Your task to perform on an android device: turn pop-ups on in chrome Image 0: 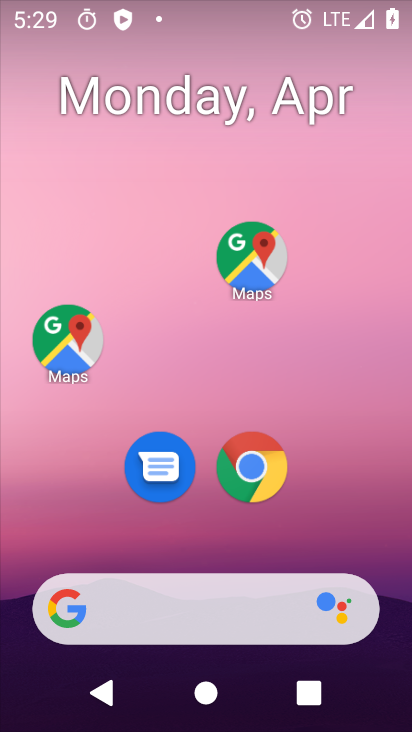
Step 0: drag from (347, 599) to (367, 2)
Your task to perform on an android device: turn pop-ups on in chrome Image 1: 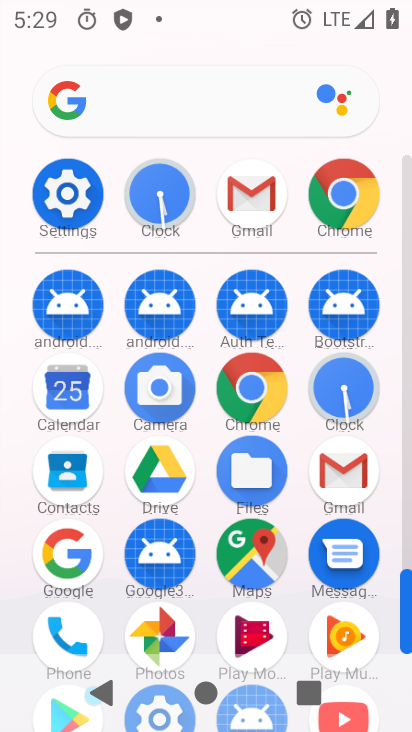
Step 1: click (252, 402)
Your task to perform on an android device: turn pop-ups on in chrome Image 2: 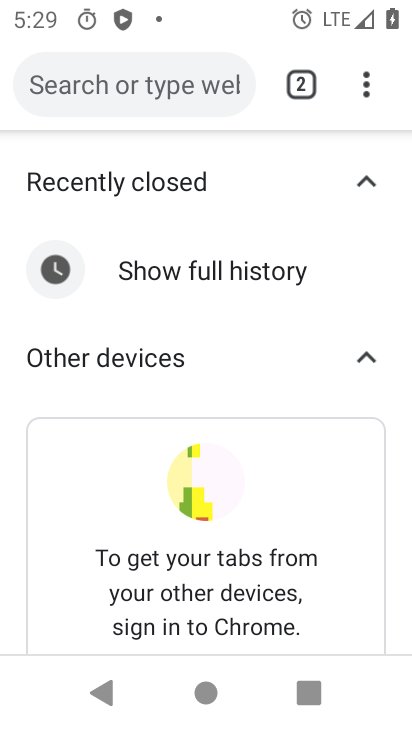
Step 2: drag from (373, 75) to (208, 523)
Your task to perform on an android device: turn pop-ups on in chrome Image 3: 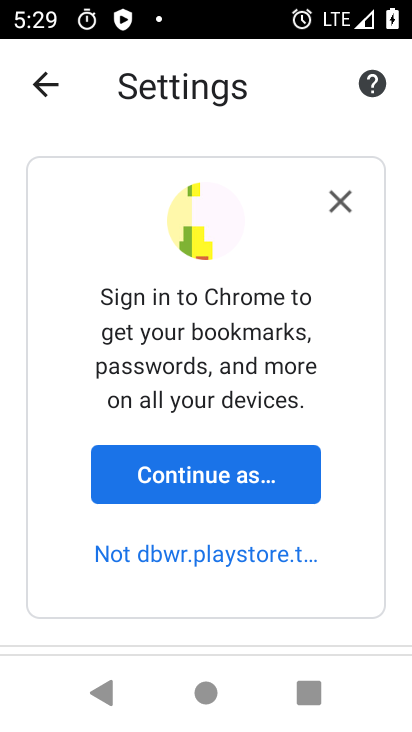
Step 3: drag from (190, 636) to (219, 75)
Your task to perform on an android device: turn pop-ups on in chrome Image 4: 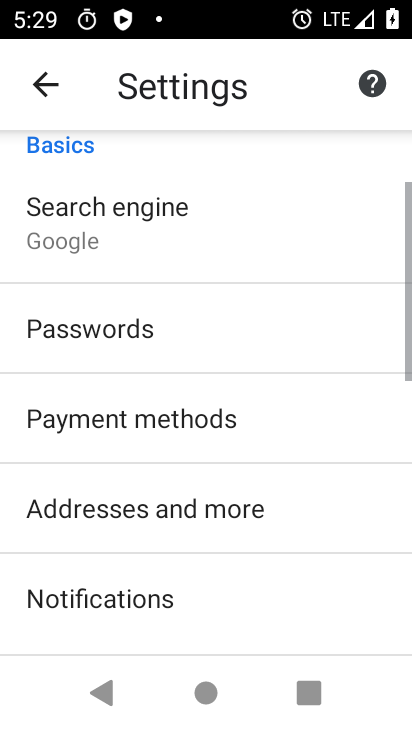
Step 4: drag from (284, 566) to (303, 67)
Your task to perform on an android device: turn pop-ups on in chrome Image 5: 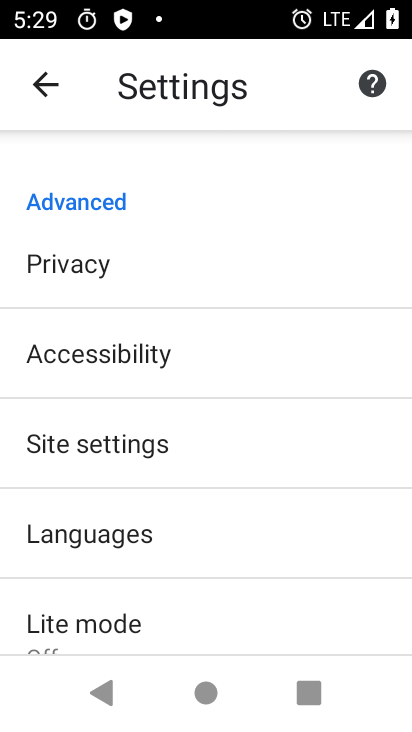
Step 5: drag from (136, 653) to (174, 300)
Your task to perform on an android device: turn pop-ups on in chrome Image 6: 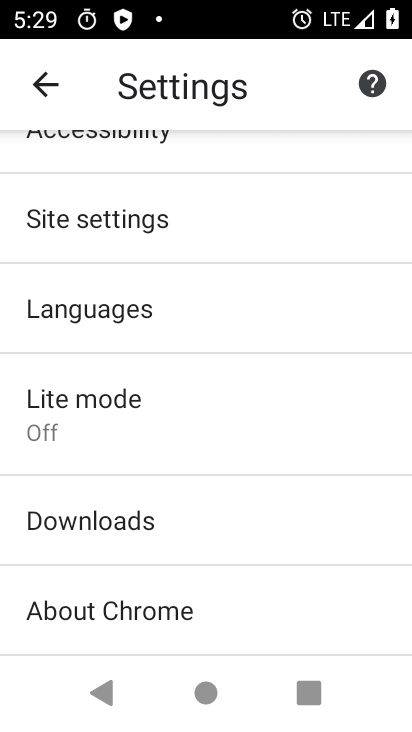
Step 6: click (190, 226)
Your task to perform on an android device: turn pop-ups on in chrome Image 7: 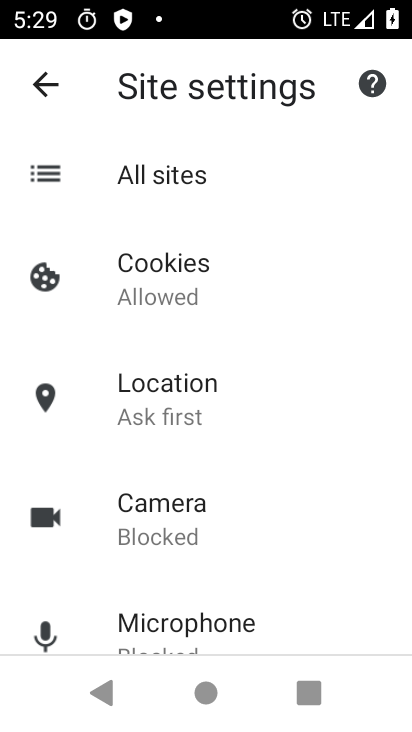
Step 7: drag from (310, 641) to (358, 166)
Your task to perform on an android device: turn pop-ups on in chrome Image 8: 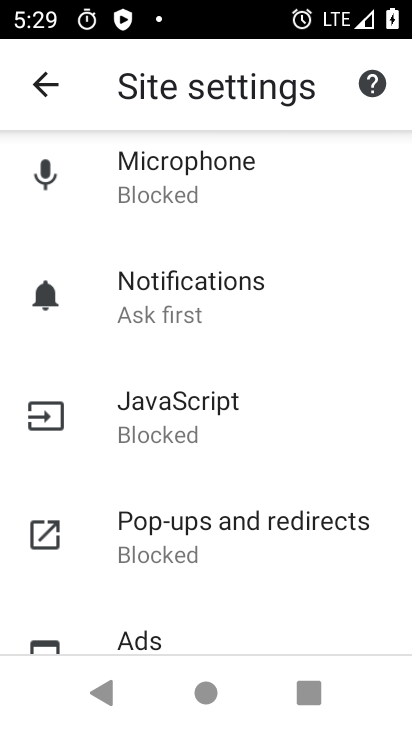
Step 8: click (311, 543)
Your task to perform on an android device: turn pop-ups on in chrome Image 9: 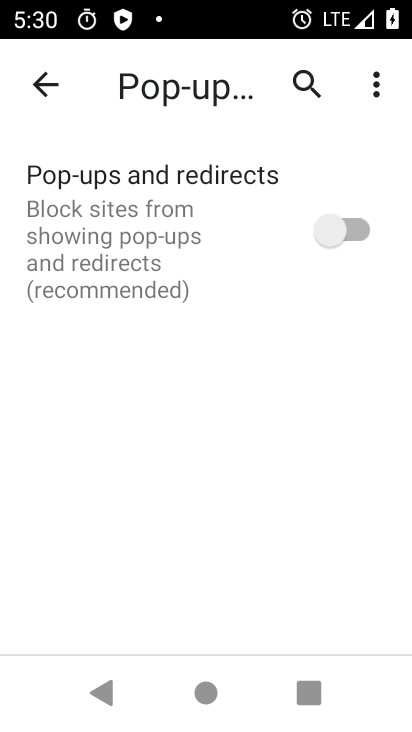
Step 9: click (361, 228)
Your task to perform on an android device: turn pop-ups on in chrome Image 10: 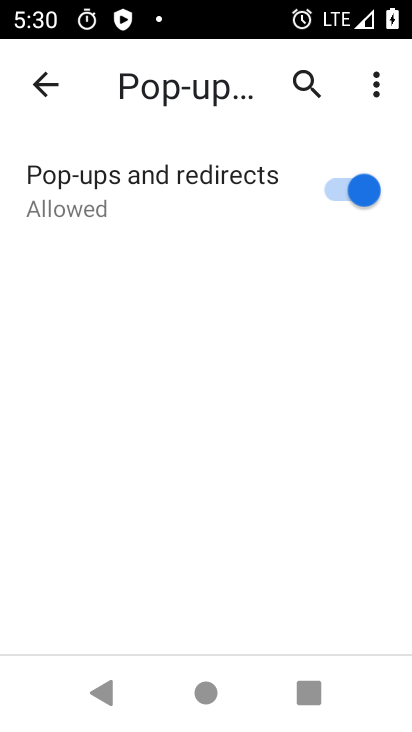
Step 10: task complete